Your task to perform on an android device: Go to ESPN.com Image 0: 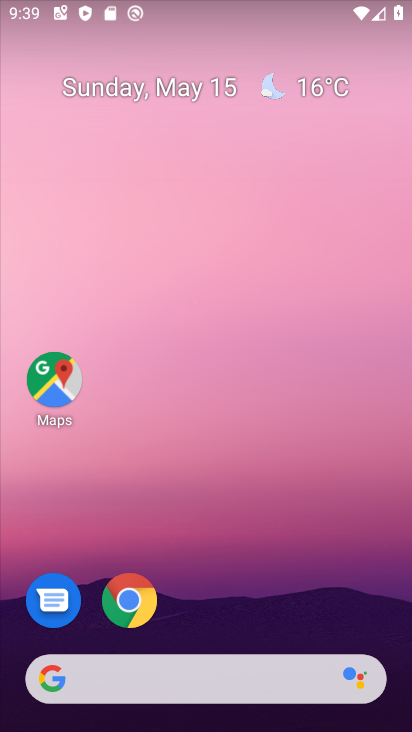
Step 0: click (142, 604)
Your task to perform on an android device: Go to ESPN.com Image 1: 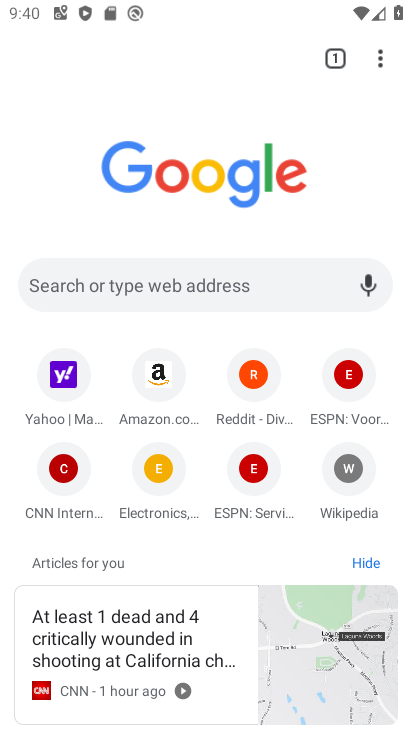
Step 1: click (255, 471)
Your task to perform on an android device: Go to ESPN.com Image 2: 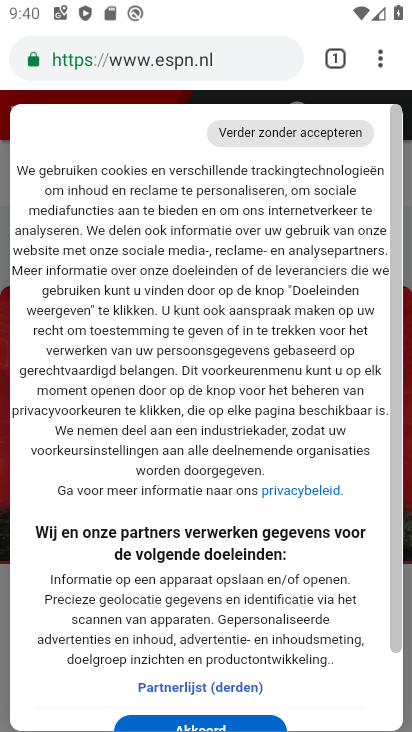
Step 2: click (227, 716)
Your task to perform on an android device: Go to ESPN.com Image 3: 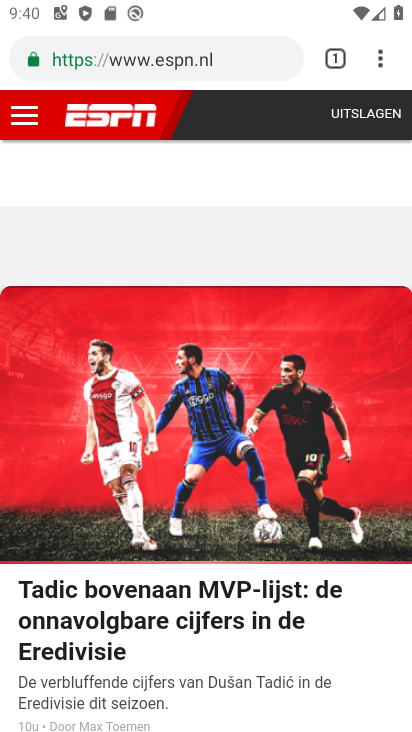
Step 3: task complete